Your task to perform on an android device: delete browsing data in the chrome app Image 0: 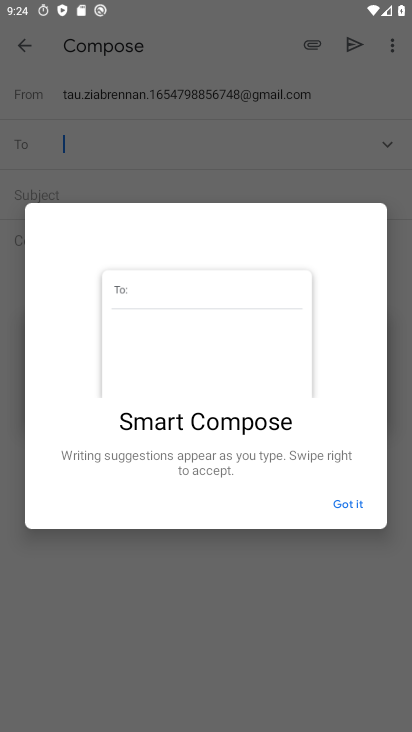
Step 0: press home button
Your task to perform on an android device: delete browsing data in the chrome app Image 1: 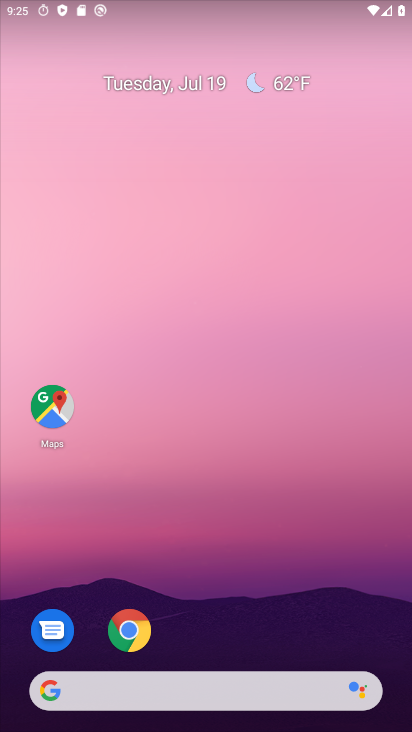
Step 1: click (130, 634)
Your task to perform on an android device: delete browsing data in the chrome app Image 2: 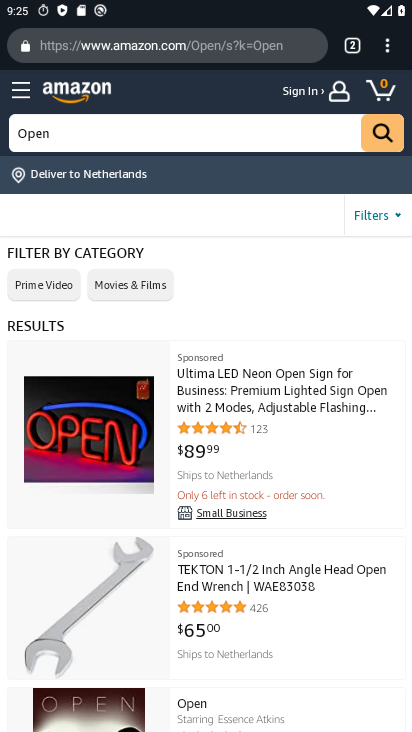
Step 2: click (385, 45)
Your task to perform on an android device: delete browsing data in the chrome app Image 3: 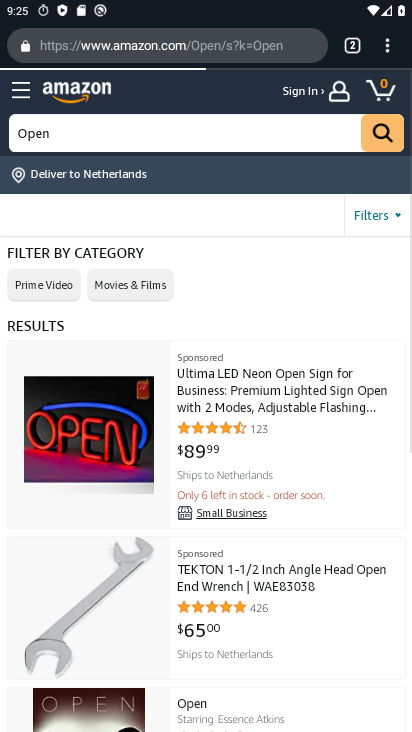
Step 3: click (387, 50)
Your task to perform on an android device: delete browsing data in the chrome app Image 4: 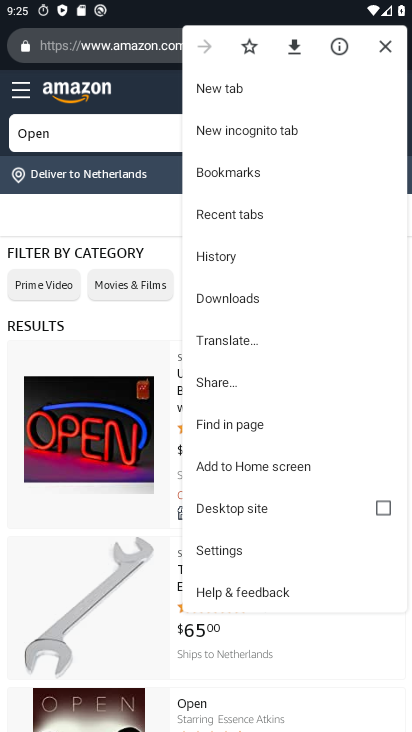
Step 4: click (214, 254)
Your task to perform on an android device: delete browsing data in the chrome app Image 5: 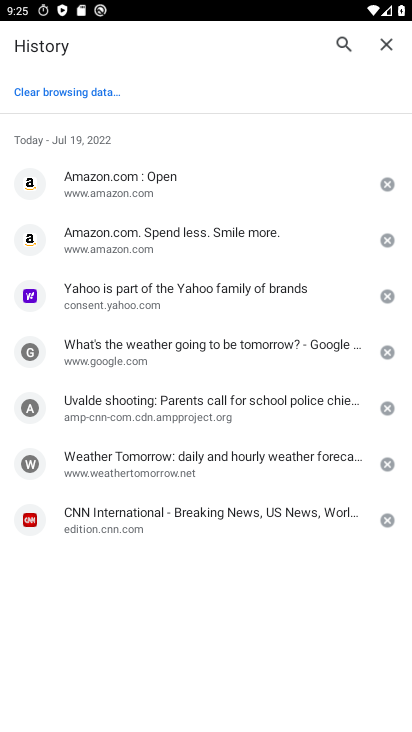
Step 5: click (96, 93)
Your task to perform on an android device: delete browsing data in the chrome app Image 6: 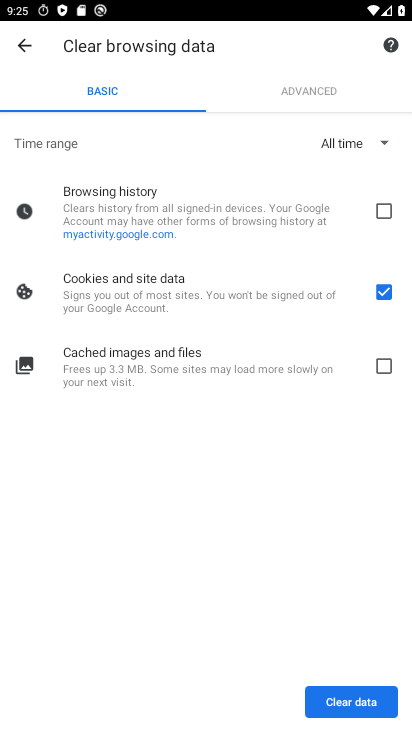
Step 6: click (351, 706)
Your task to perform on an android device: delete browsing data in the chrome app Image 7: 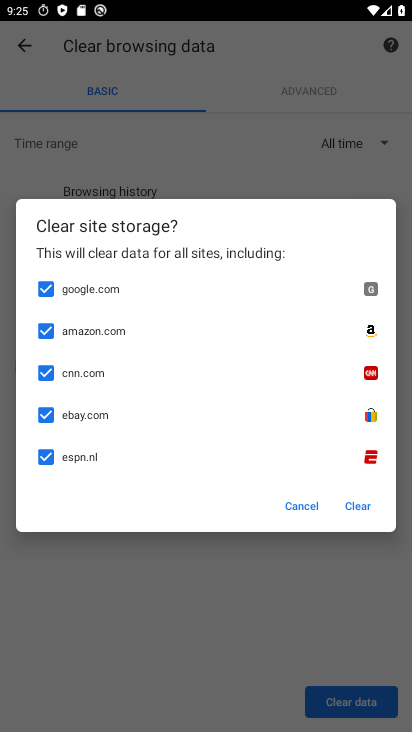
Step 7: click (351, 505)
Your task to perform on an android device: delete browsing data in the chrome app Image 8: 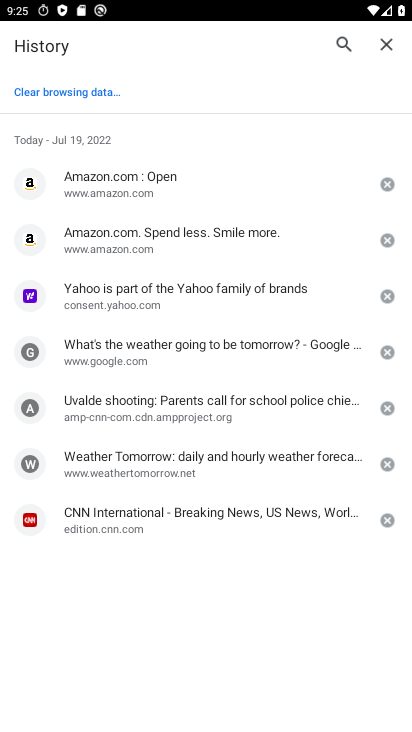
Step 8: click (61, 87)
Your task to perform on an android device: delete browsing data in the chrome app Image 9: 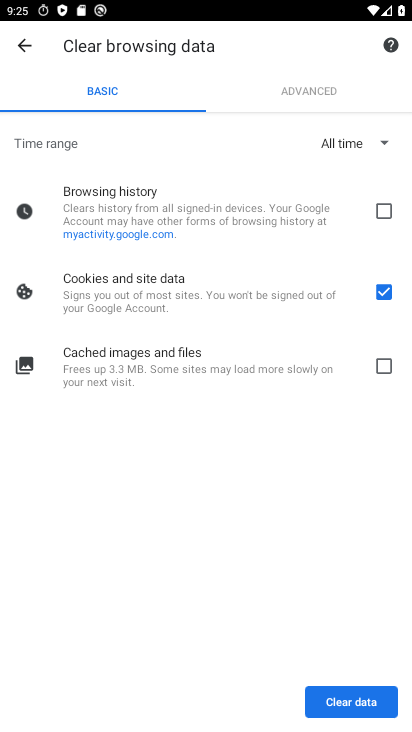
Step 9: click (387, 367)
Your task to perform on an android device: delete browsing data in the chrome app Image 10: 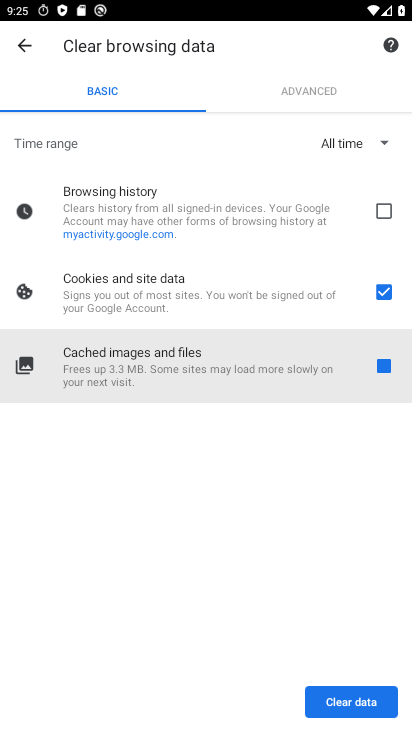
Step 10: click (390, 207)
Your task to perform on an android device: delete browsing data in the chrome app Image 11: 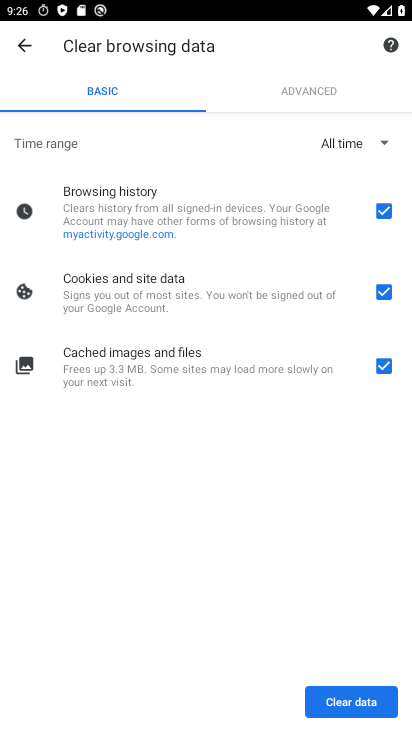
Step 11: click (365, 709)
Your task to perform on an android device: delete browsing data in the chrome app Image 12: 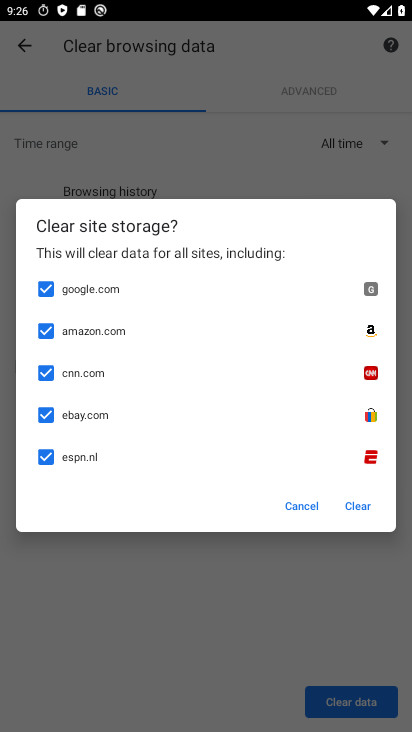
Step 12: click (349, 503)
Your task to perform on an android device: delete browsing data in the chrome app Image 13: 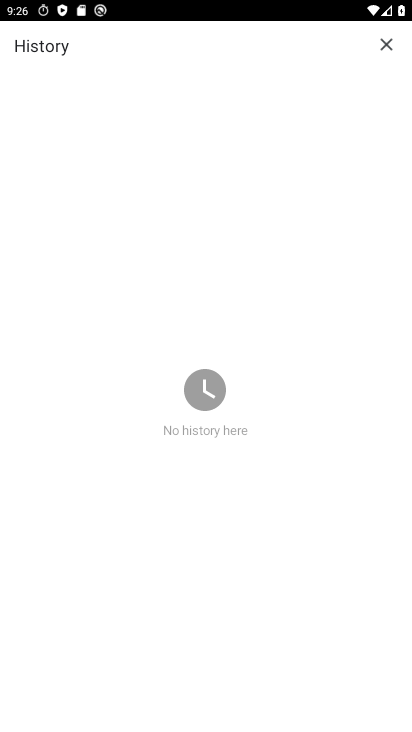
Step 13: task complete